Your task to perform on an android device: check storage Image 0: 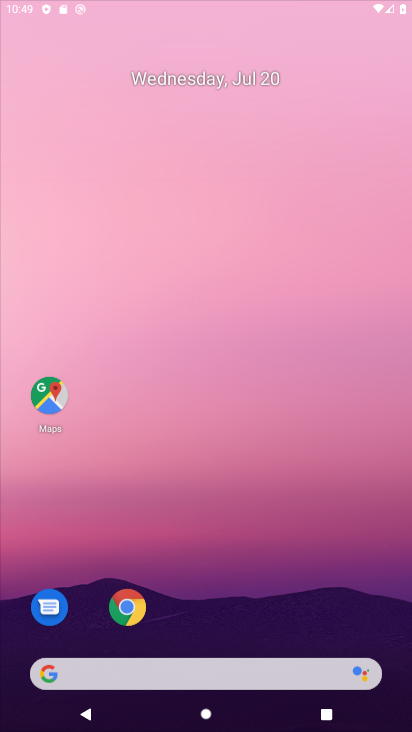
Step 0: click (203, 55)
Your task to perform on an android device: check storage Image 1: 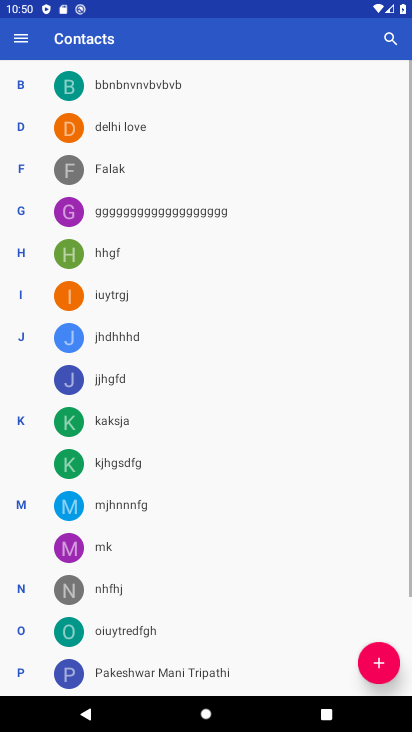
Step 1: press home button
Your task to perform on an android device: check storage Image 2: 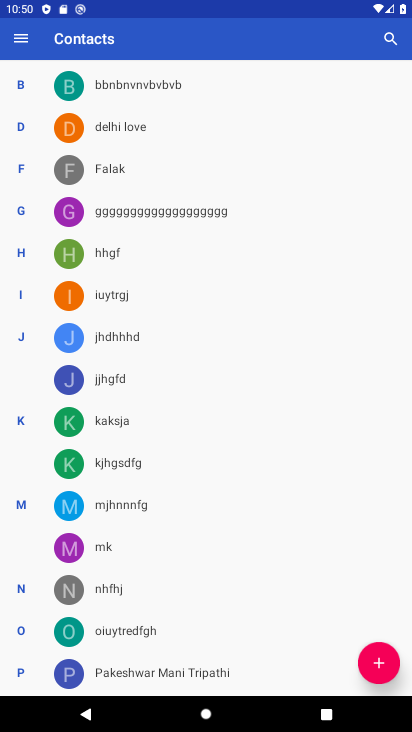
Step 2: drag from (384, 611) to (197, 83)
Your task to perform on an android device: check storage Image 3: 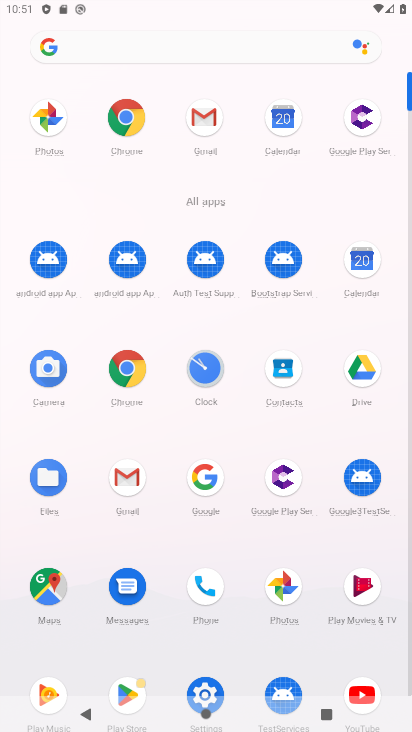
Step 3: click (200, 674)
Your task to perform on an android device: check storage Image 4: 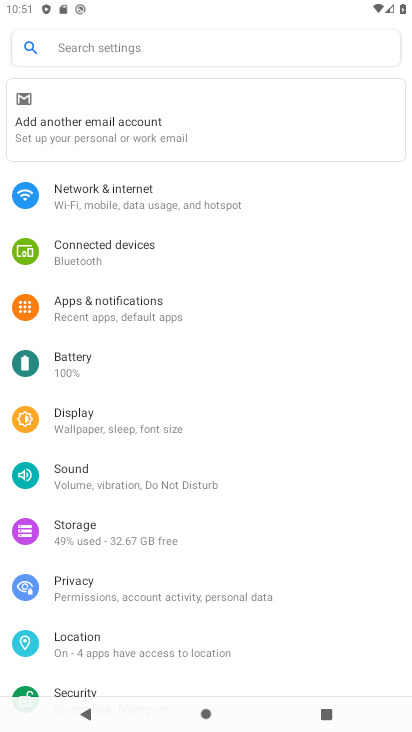
Step 4: click (103, 542)
Your task to perform on an android device: check storage Image 5: 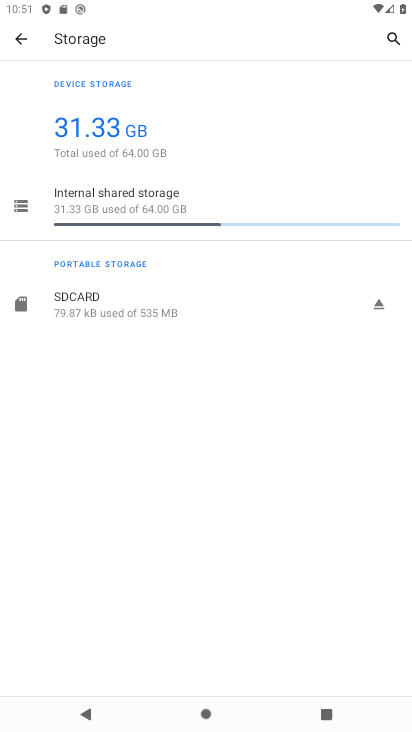
Step 5: click (170, 200)
Your task to perform on an android device: check storage Image 6: 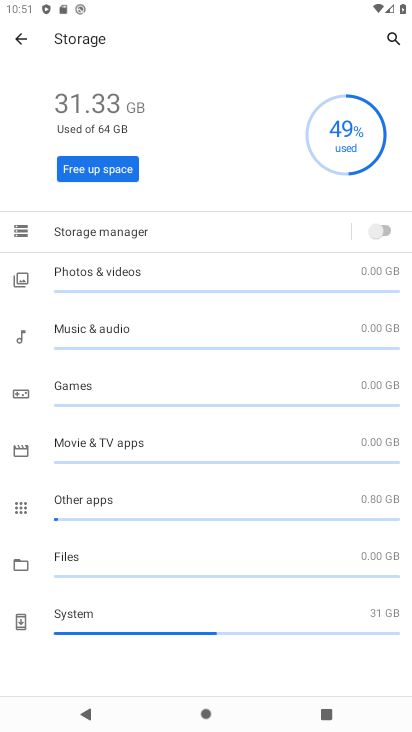
Step 6: task complete